Your task to perform on an android device: Open sound settings Image 0: 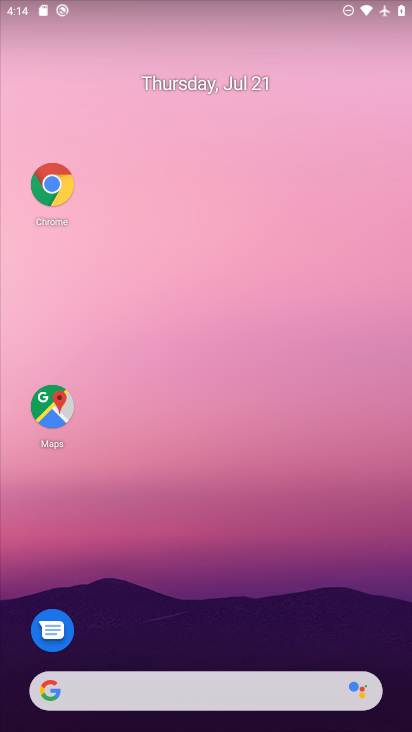
Step 0: drag from (212, 666) to (138, 143)
Your task to perform on an android device: Open sound settings Image 1: 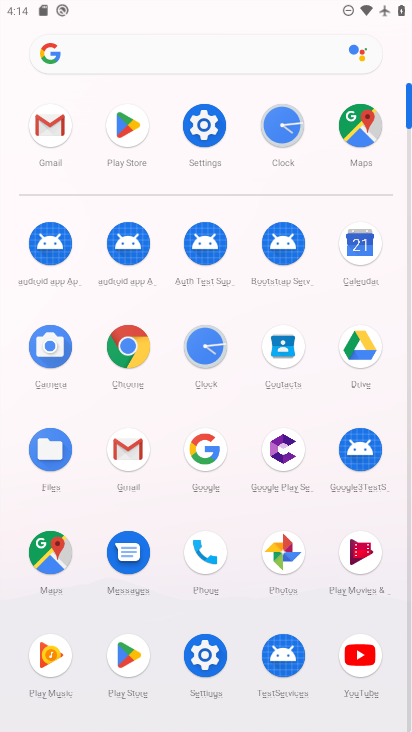
Step 1: click (195, 138)
Your task to perform on an android device: Open sound settings Image 2: 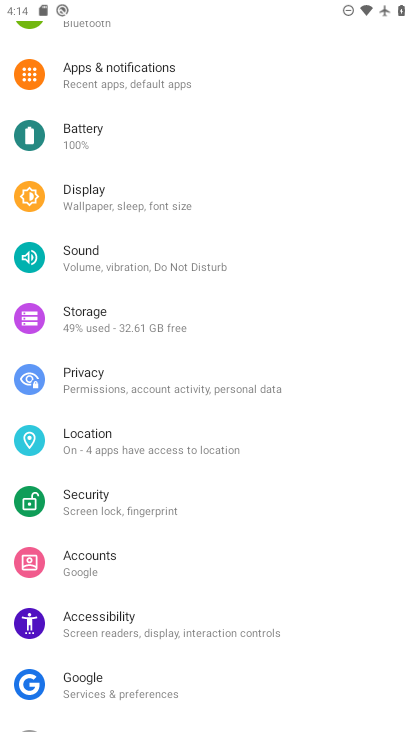
Step 2: click (99, 266)
Your task to perform on an android device: Open sound settings Image 3: 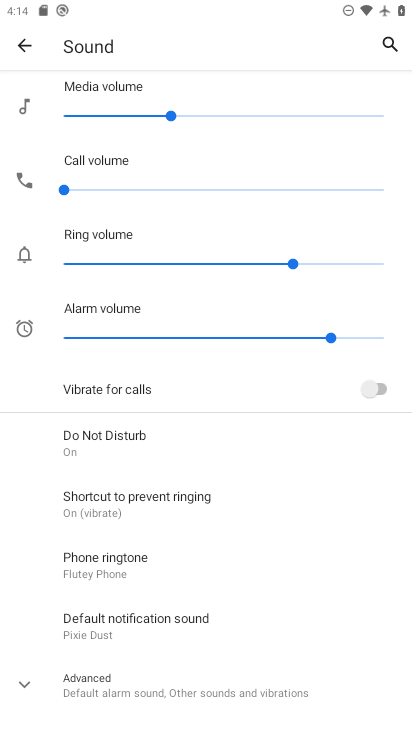
Step 3: task complete